Your task to perform on an android device: What's on my calendar tomorrow? Image 0: 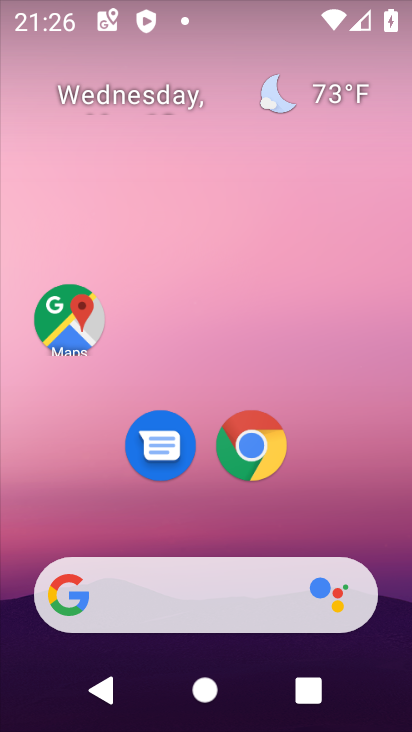
Step 0: drag from (363, 321) to (364, 271)
Your task to perform on an android device: What's on my calendar tomorrow? Image 1: 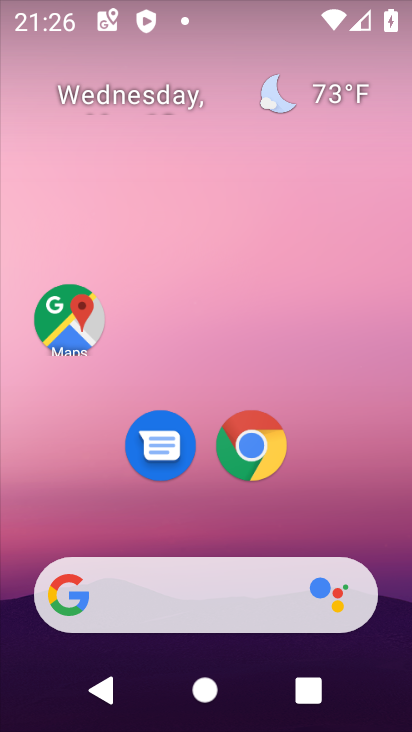
Step 1: drag from (317, 514) to (335, 124)
Your task to perform on an android device: What's on my calendar tomorrow? Image 2: 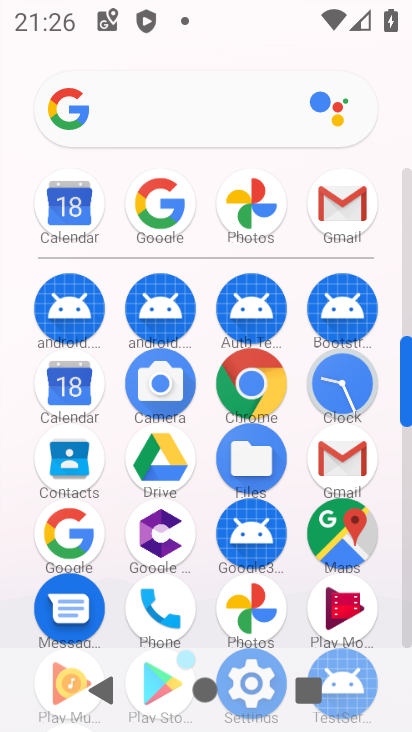
Step 2: click (52, 385)
Your task to perform on an android device: What's on my calendar tomorrow? Image 3: 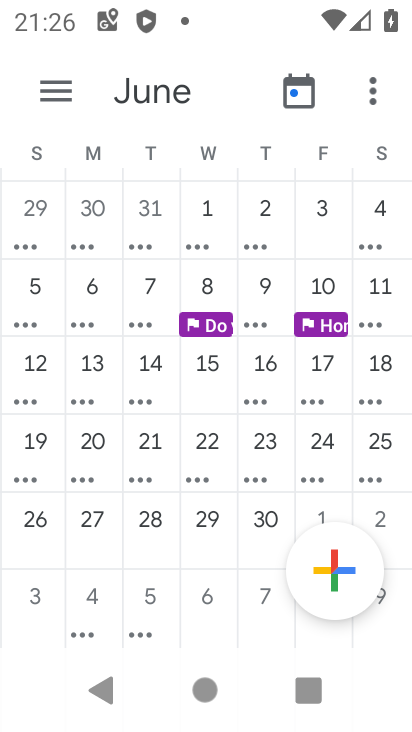
Step 3: click (92, 440)
Your task to perform on an android device: What's on my calendar tomorrow? Image 4: 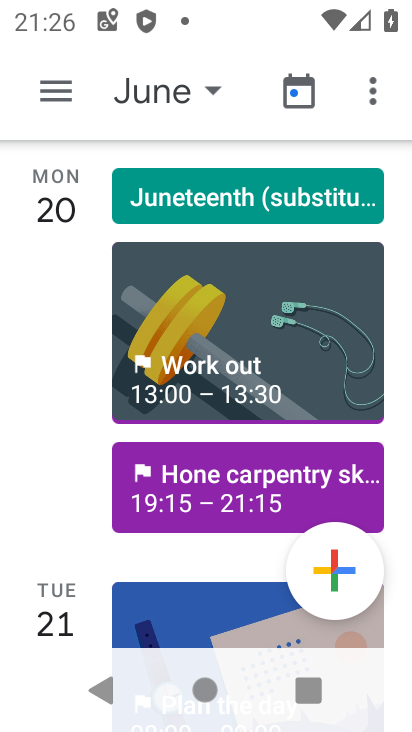
Step 4: click (45, 80)
Your task to perform on an android device: What's on my calendar tomorrow? Image 5: 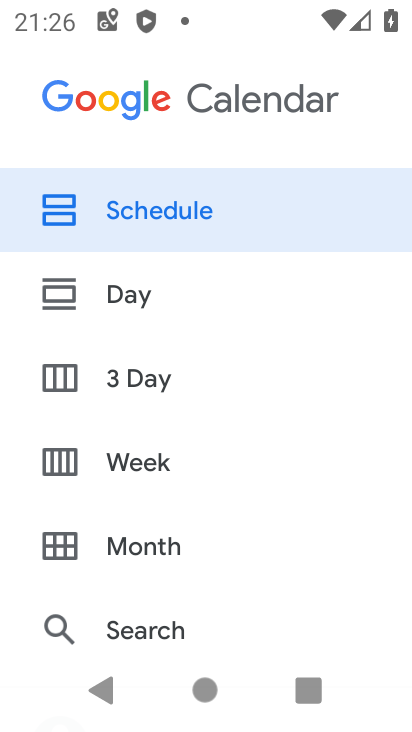
Step 5: click (156, 547)
Your task to perform on an android device: What's on my calendar tomorrow? Image 6: 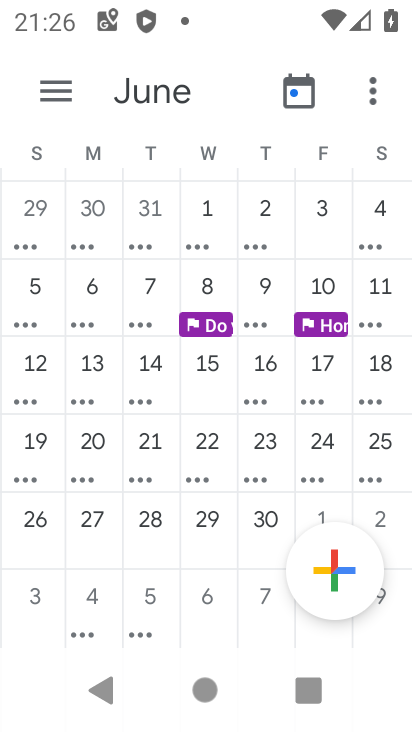
Step 6: drag from (77, 326) to (345, 340)
Your task to perform on an android device: What's on my calendar tomorrow? Image 7: 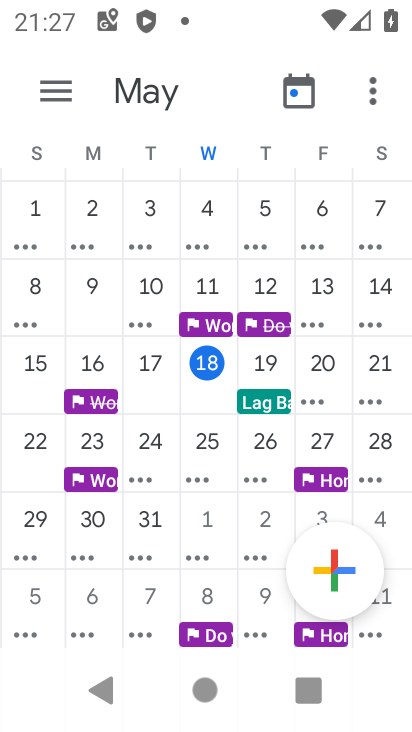
Step 7: click (314, 366)
Your task to perform on an android device: What's on my calendar tomorrow? Image 8: 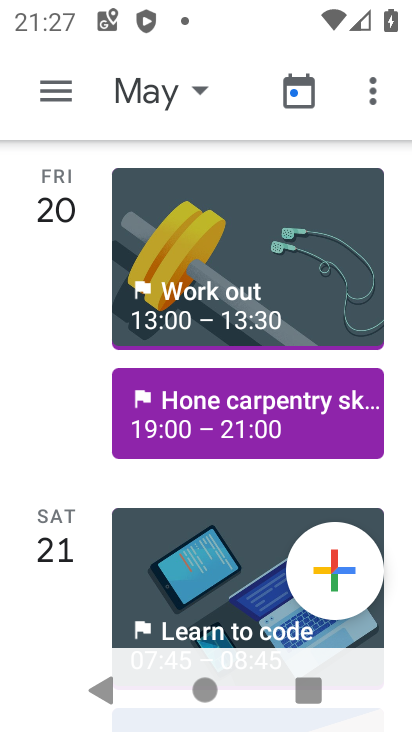
Step 8: task complete